Your task to perform on an android device: Go to Android settings Image 0: 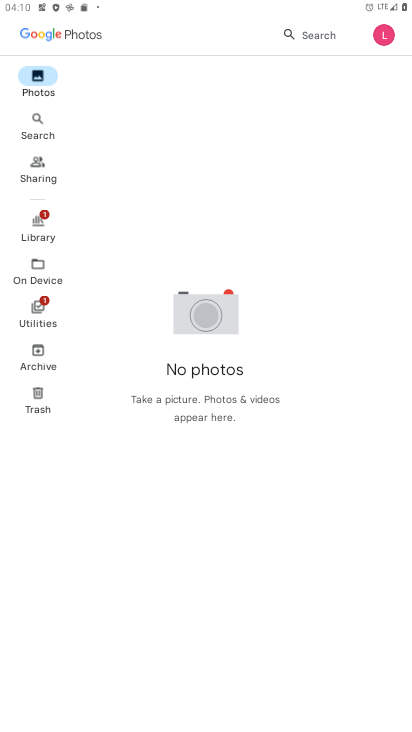
Step 0: press home button
Your task to perform on an android device: Go to Android settings Image 1: 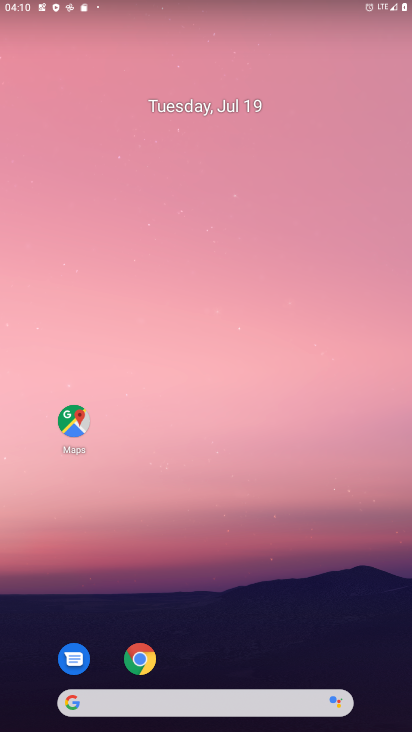
Step 1: drag from (346, 654) to (301, 4)
Your task to perform on an android device: Go to Android settings Image 2: 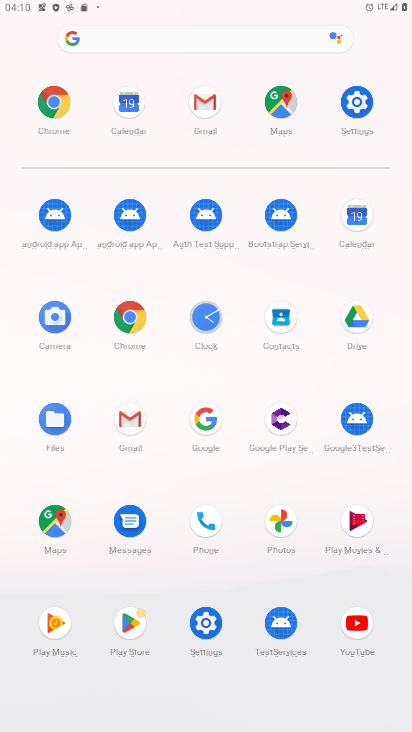
Step 2: click (374, 134)
Your task to perform on an android device: Go to Android settings Image 3: 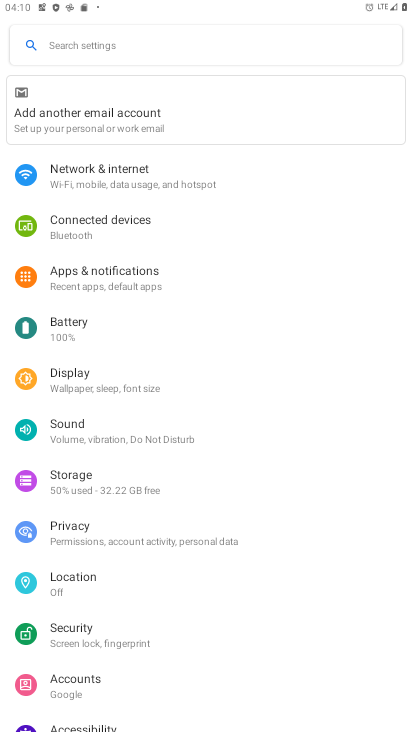
Step 3: click (106, 601)
Your task to perform on an android device: Go to Android settings Image 4: 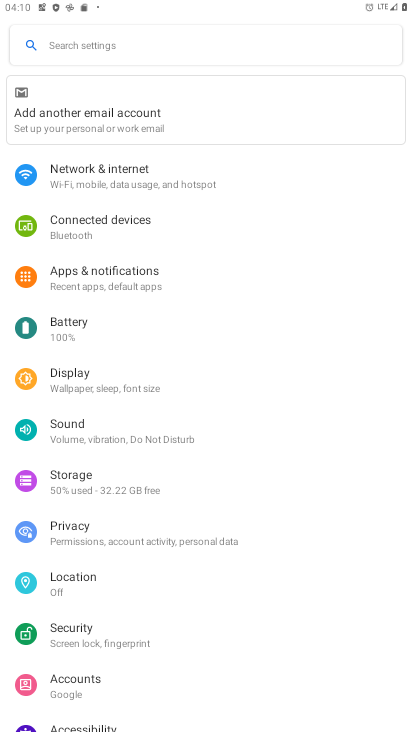
Step 4: click (170, 157)
Your task to perform on an android device: Go to Android settings Image 5: 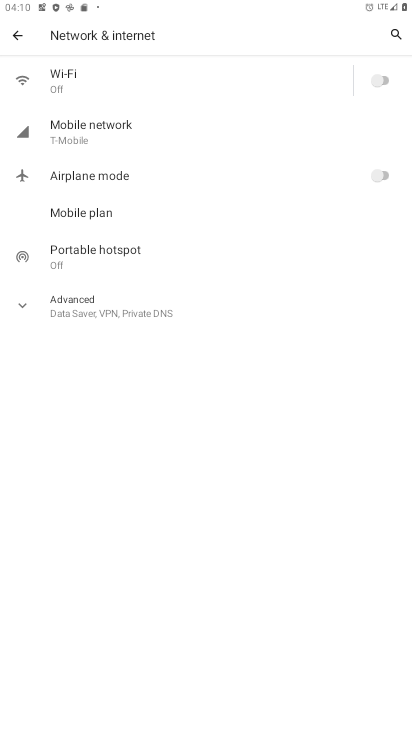
Step 5: press back button
Your task to perform on an android device: Go to Android settings Image 6: 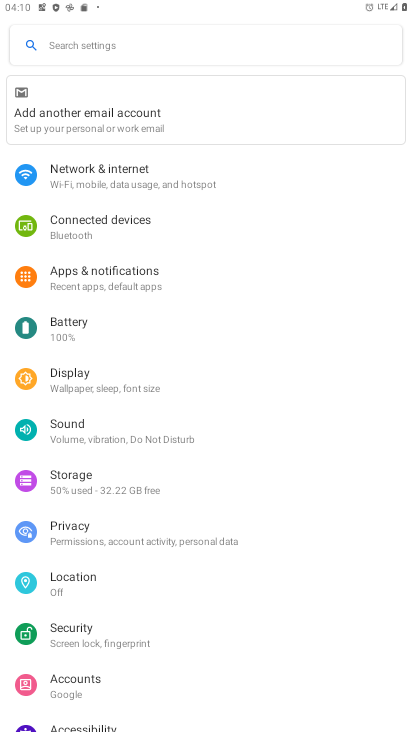
Step 6: drag from (137, 628) to (245, 68)
Your task to perform on an android device: Go to Android settings Image 7: 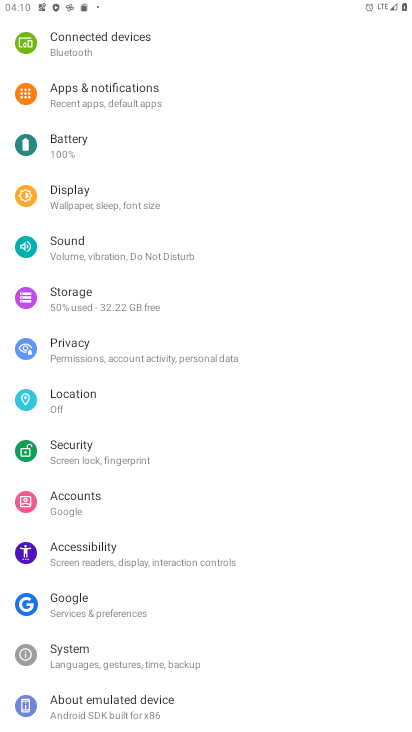
Step 7: click (95, 693)
Your task to perform on an android device: Go to Android settings Image 8: 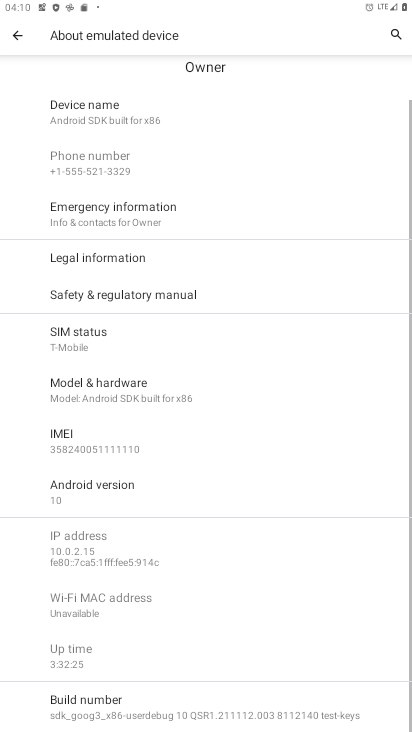
Step 8: click (98, 500)
Your task to perform on an android device: Go to Android settings Image 9: 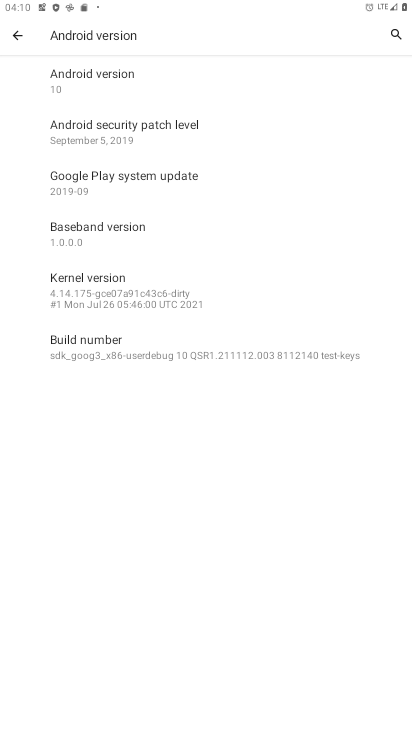
Step 9: click (108, 67)
Your task to perform on an android device: Go to Android settings Image 10: 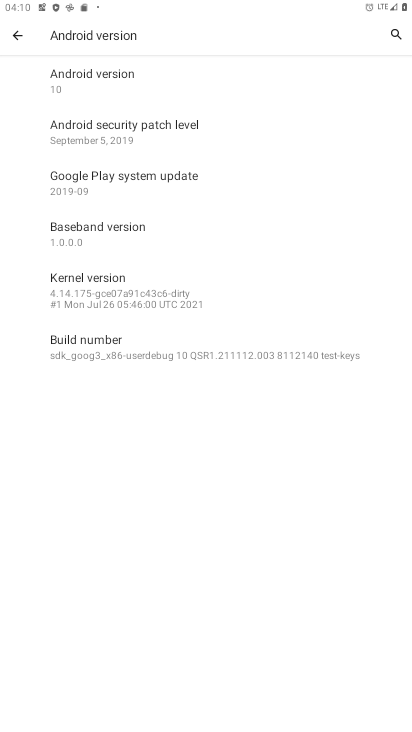
Step 10: task complete